Your task to perform on an android device: Go to network settings Image 0: 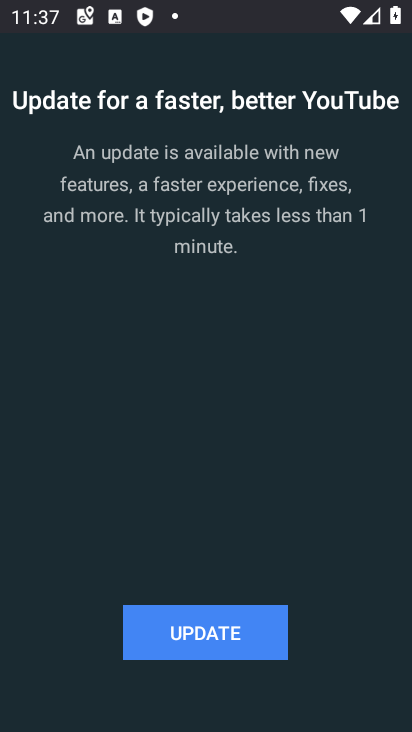
Step 0: press home button
Your task to perform on an android device: Go to network settings Image 1: 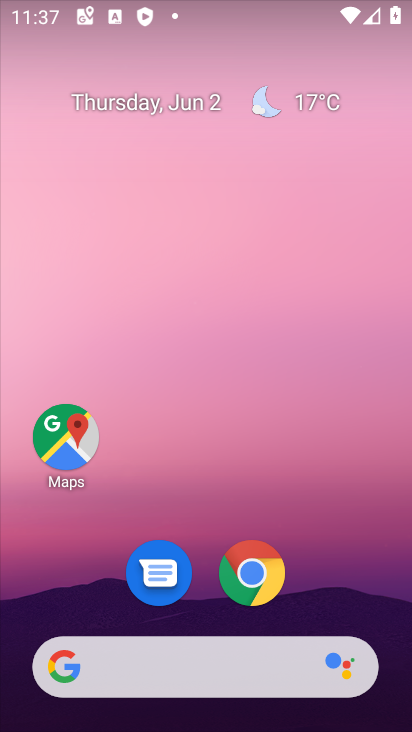
Step 1: drag from (372, 569) to (380, 6)
Your task to perform on an android device: Go to network settings Image 2: 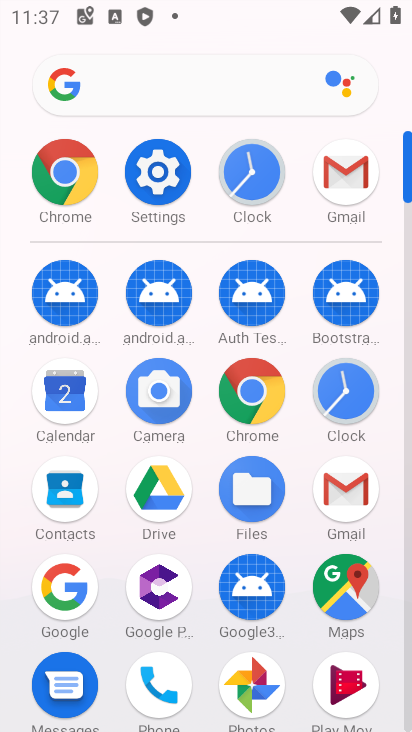
Step 2: click (160, 168)
Your task to perform on an android device: Go to network settings Image 3: 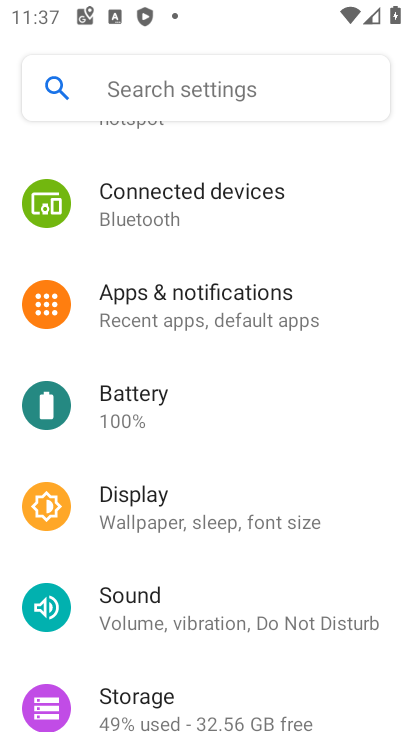
Step 3: drag from (166, 167) to (267, 512)
Your task to perform on an android device: Go to network settings Image 4: 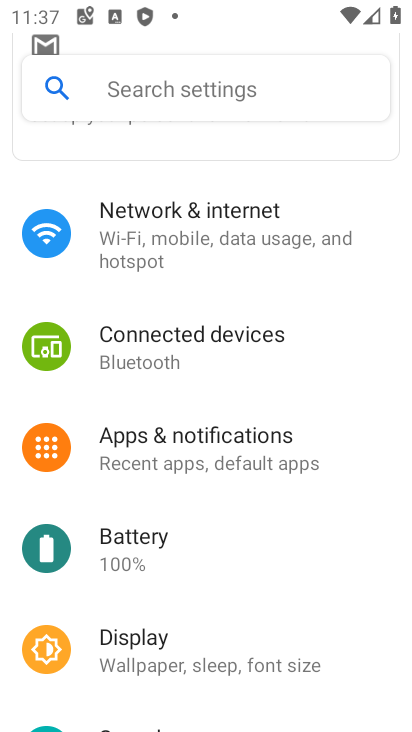
Step 4: click (235, 240)
Your task to perform on an android device: Go to network settings Image 5: 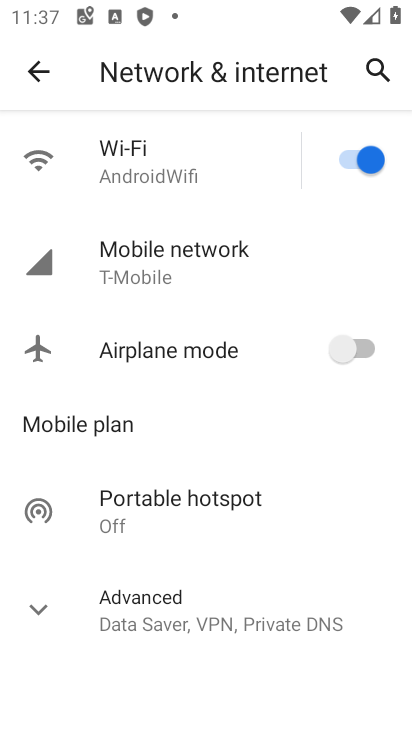
Step 5: task complete